Your task to perform on an android device: What's the weather going to be this weekend? Image 0: 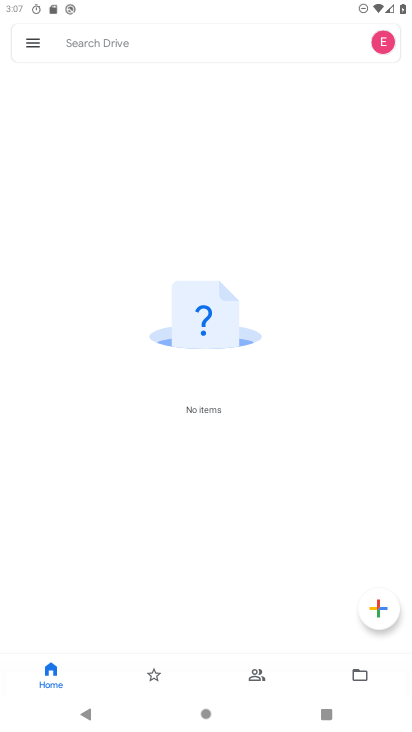
Step 0: press home button
Your task to perform on an android device: What's the weather going to be this weekend? Image 1: 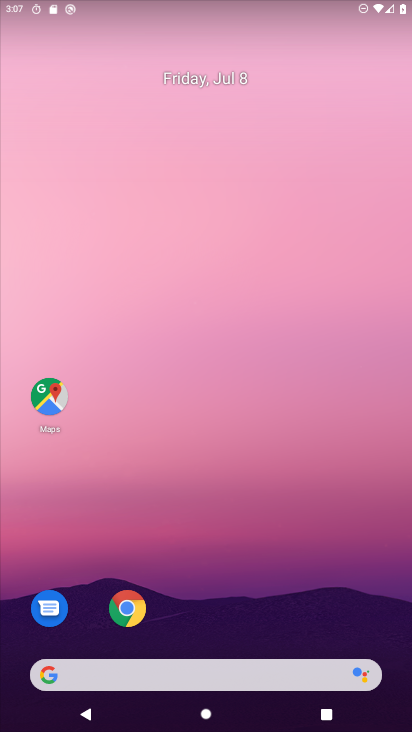
Step 1: drag from (229, 724) to (249, 167)
Your task to perform on an android device: What's the weather going to be this weekend? Image 2: 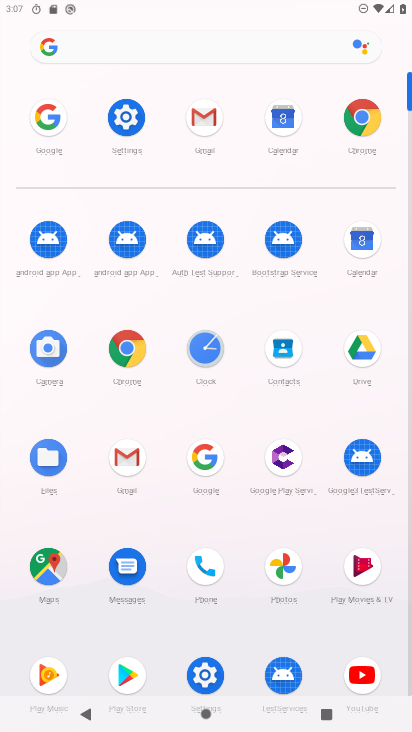
Step 2: click (205, 459)
Your task to perform on an android device: What's the weather going to be this weekend? Image 3: 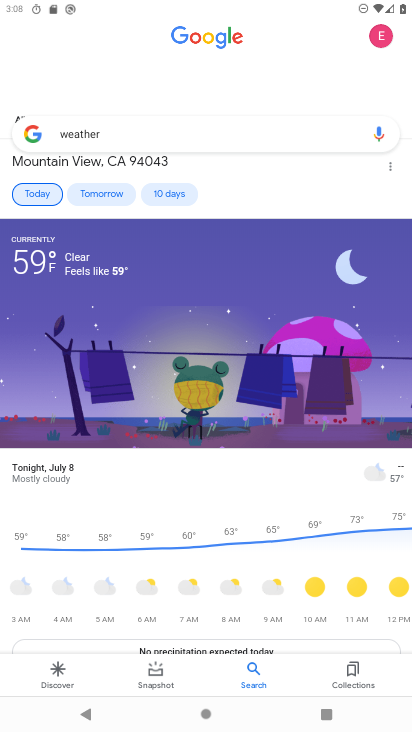
Step 3: click (167, 193)
Your task to perform on an android device: What's the weather going to be this weekend? Image 4: 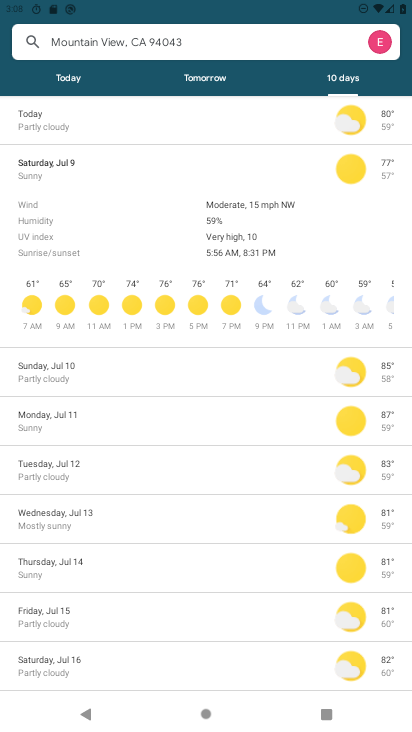
Step 4: task complete